Your task to perform on an android device: check battery use Image 0: 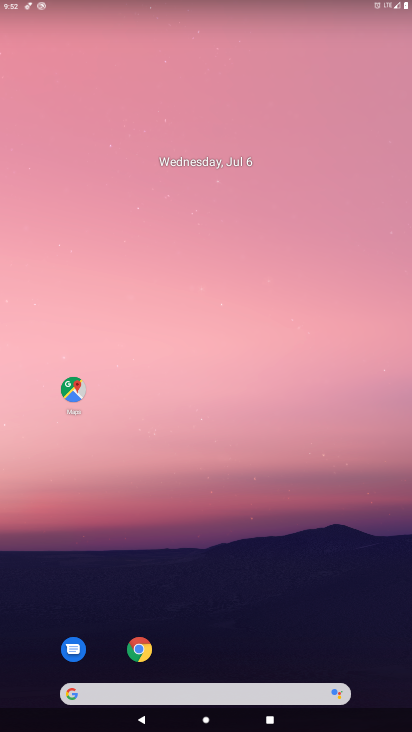
Step 0: drag from (210, 642) to (224, 7)
Your task to perform on an android device: check battery use Image 1: 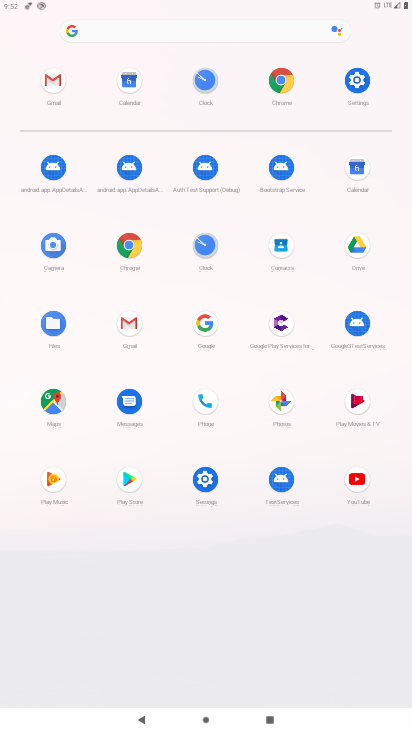
Step 1: click (351, 79)
Your task to perform on an android device: check battery use Image 2: 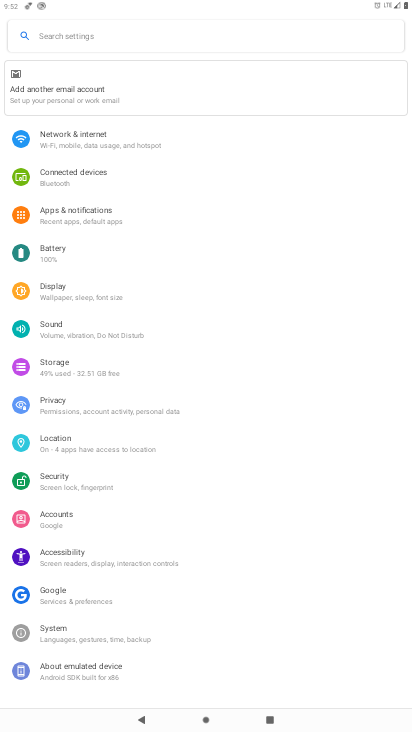
Step 2: click (79, 251)
Your task to perform on an android device: check battery use Image 3: 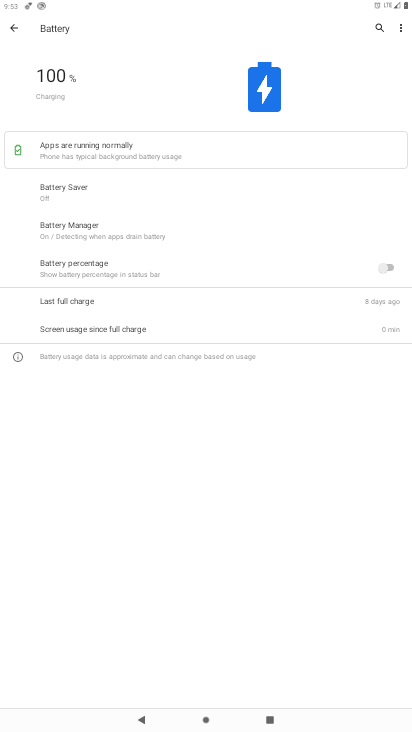
Step 3: click (403, 23)
Your task to perform on an android device: check battery use Image 4: 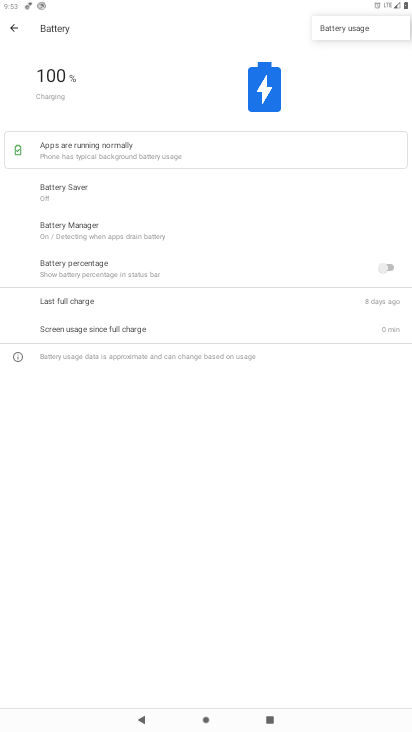
Step 4: click (353, 32)
Your task to perform on an android device: check battery use Image 5: 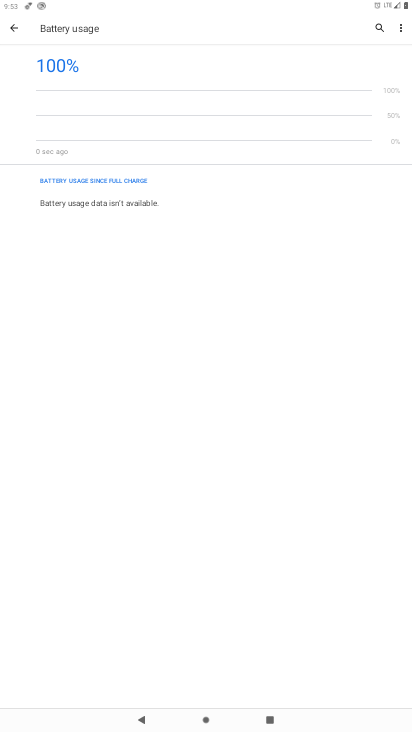
Step 5: task complete